Your task to perform on an android device: Open the map Image 0: 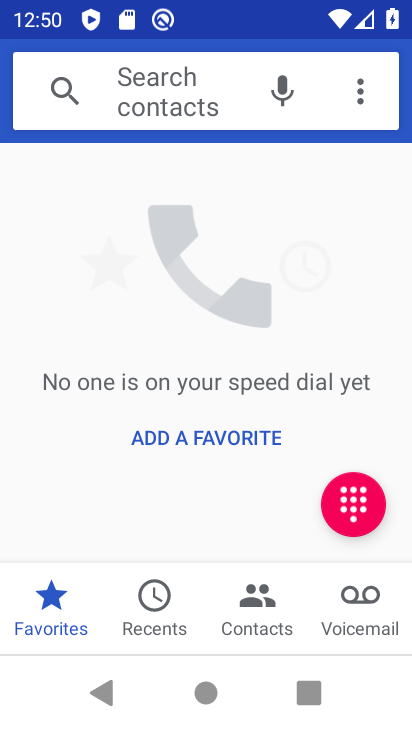
Step 0: press home button
Your task to perform on an android device: Open the map Image 1: 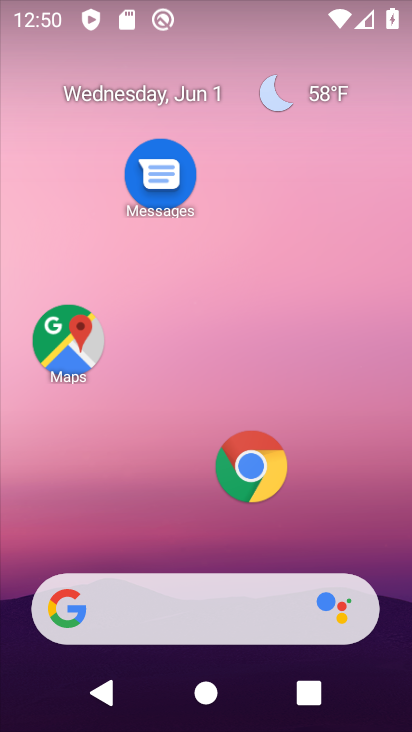
Step 1: click (89, 358)
Your task to perform on an android device: Open the map Image 2: 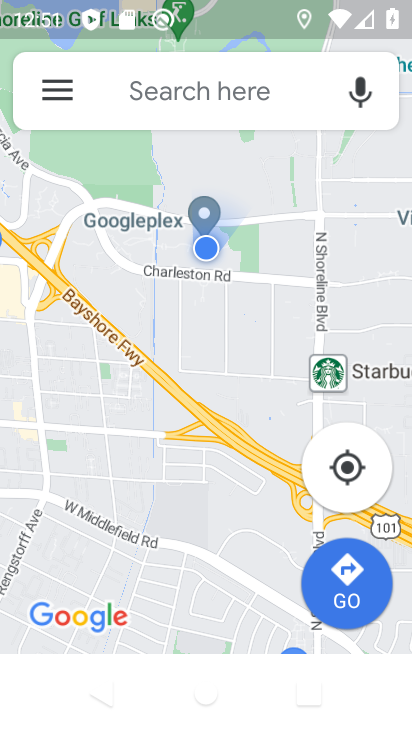
Step 2: task complete